Your task to perform on an android device: Open accessibility settings Image 0: 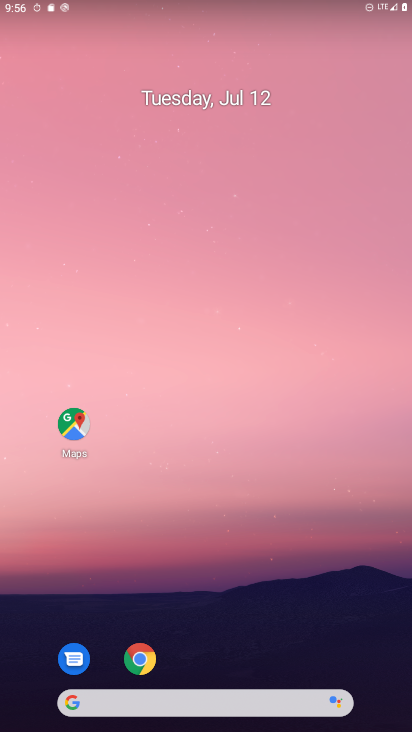
Step 0: drag from (387, 689) to (318, 6)
Your task to perform on an android device: Open accessibility settings Image 1: 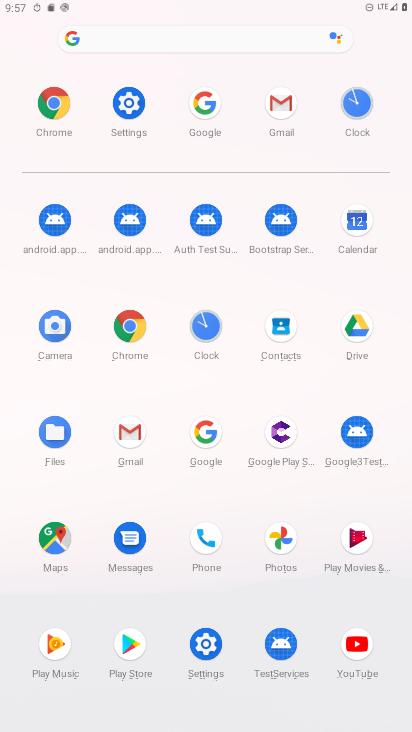
Step 1: click (208, 661)
Your task to perform on an android device: Open accessibility settings Image 2: 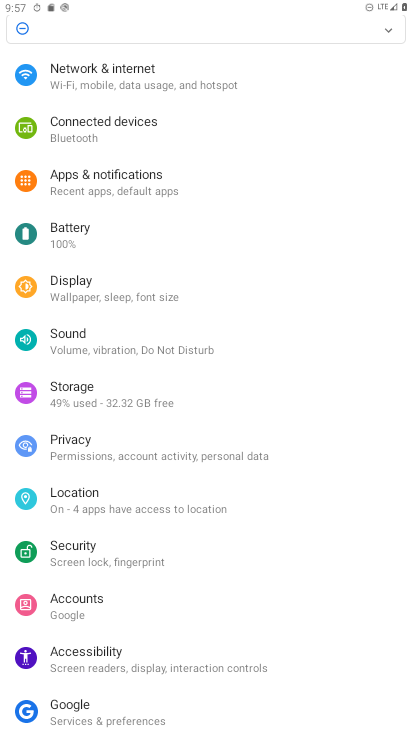
Step 2: click (114, 664)
Your task to perform on an android device: Open accessibility settings Image 3: 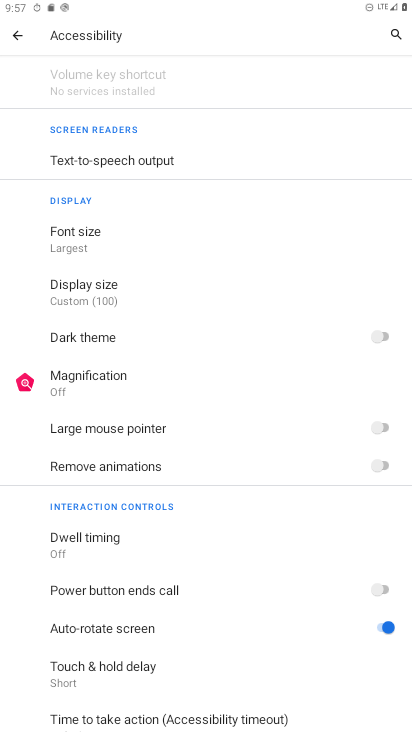
Step 3: task complete